Your task to perform on an android device: Open Youtube and go to the subscriptions tab Image 0: 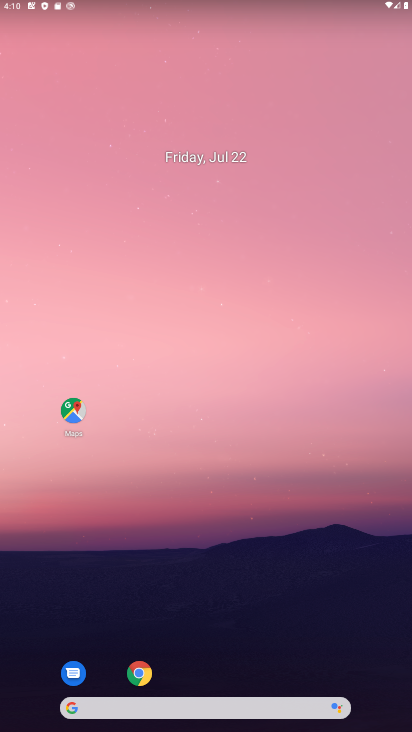
Step 0: press home button
Your task to perform on an android device: Open Youtube and go to the subscriptions tab Image 1: 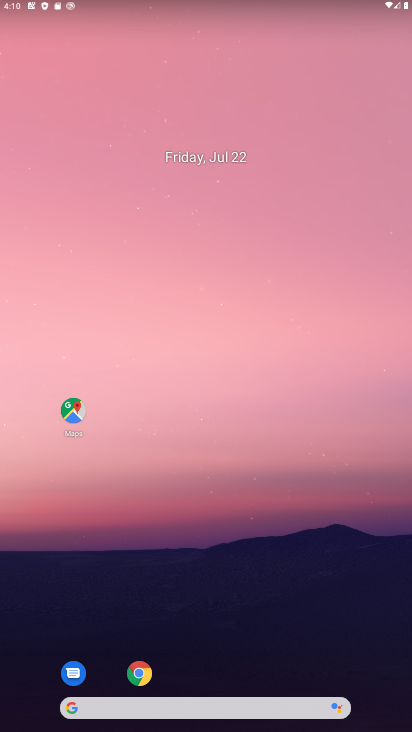
Step 1: drag from (227, 676) to (302, 62)
Your task to perform on an android device: Open Youtube and go to the subscriptions tab Image 2: 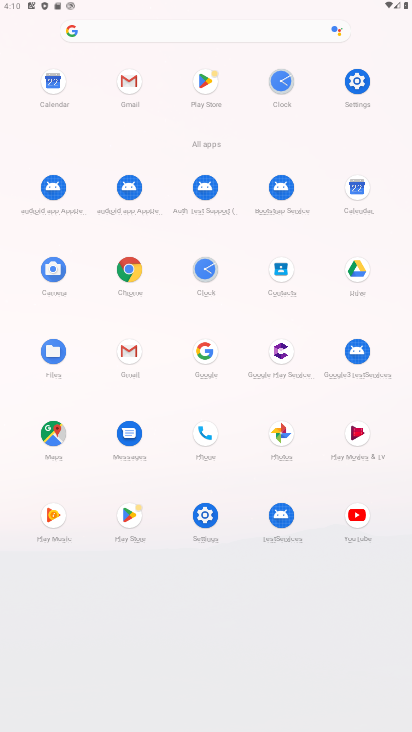
Step 2: click (354, 513)
Your task to perform on an android device: Open Youtube and go to the subscriptions tab Image 3: 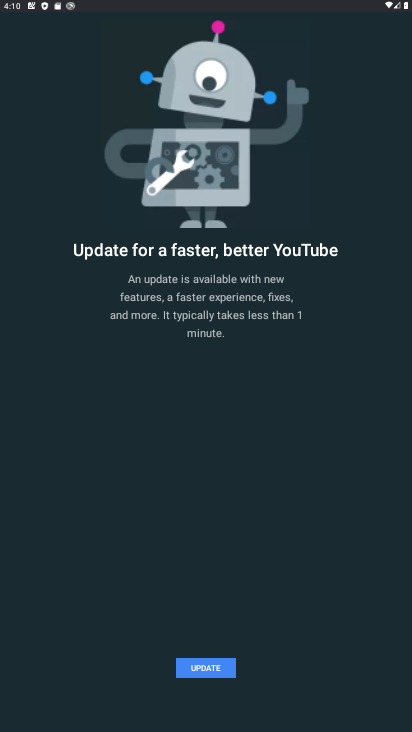
Step 3: click (203, 665)
Your task to perform on an android device: Open Youtube and go to the subscriptions tab Image 4: 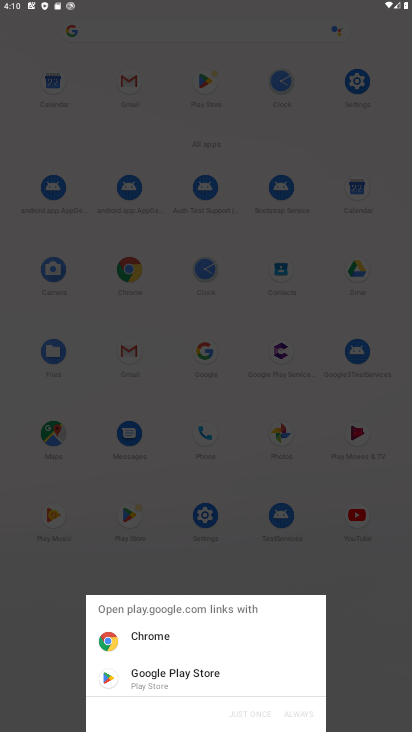
Step 4: click (169, 670)
Your task to perform on an android device: Open Youtube and go to the subscriptions tab Image 5: 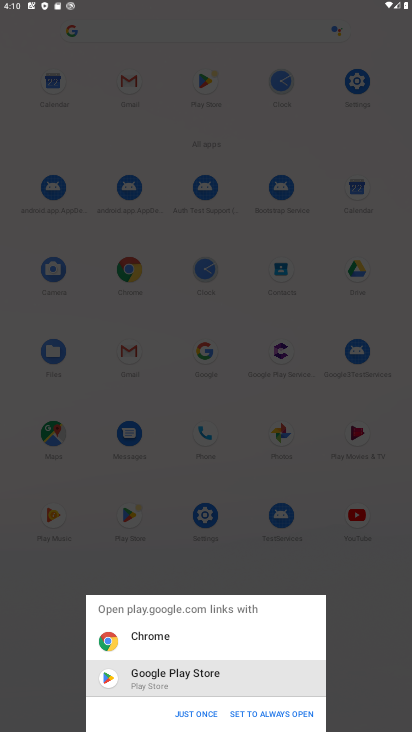
Step 5: click (194, 714)
Your task to perform on an android device: Open Youtube and go to the subscriptions tab Image 6: 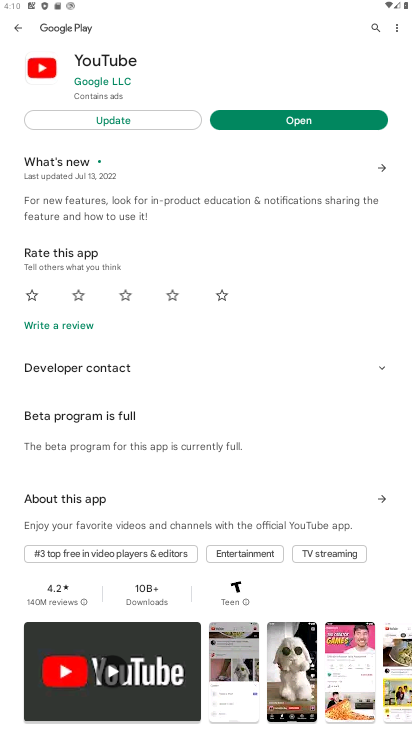
Step 6: click (118, 115)
Your task to perform on an android device: Open Youtube and go to the subscriptions tab Image 7: 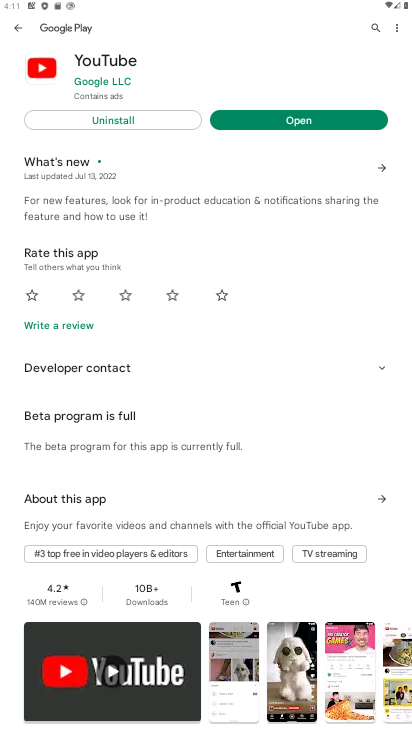
Step 7: click (294, 98)
Your task to perform on an android device: Open Youtube and go to the subscriptions tab Image 8: 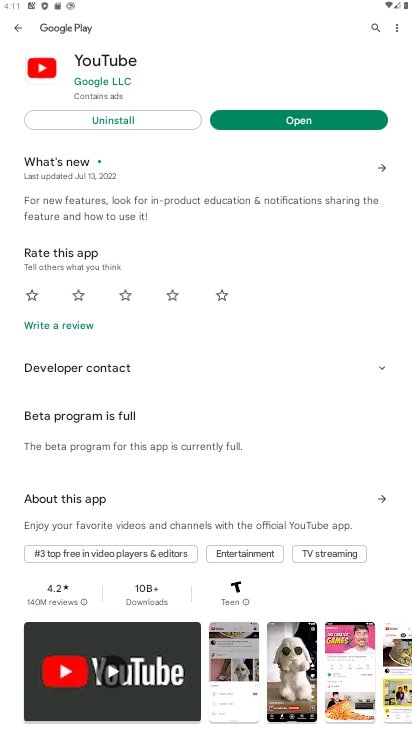
Step 8: click (292, 120)
Your task to perform on an android device: Open Youtube and go to the subscriptions tab Image 9: 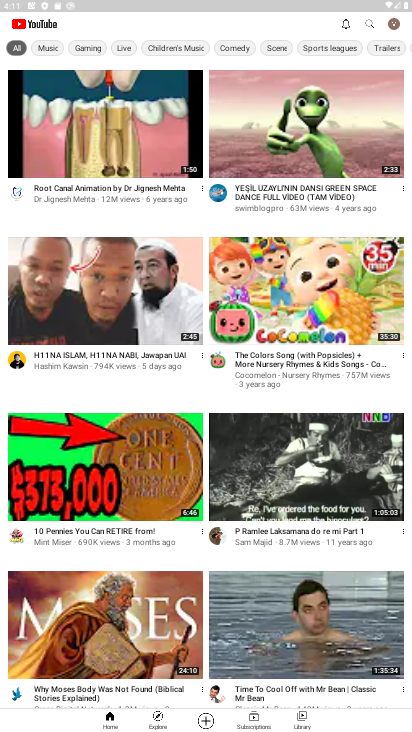
Step 9: click (251, 716)
Your task to perform on an android device: Open Youtube and go to the subscriptions tab Image 10: 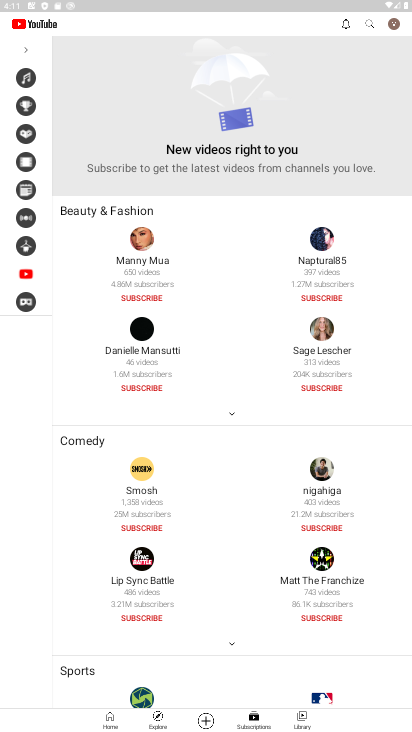
Step 10: task complete